Your task to perform on an android device: uninstall "AliExpress" Image 0: 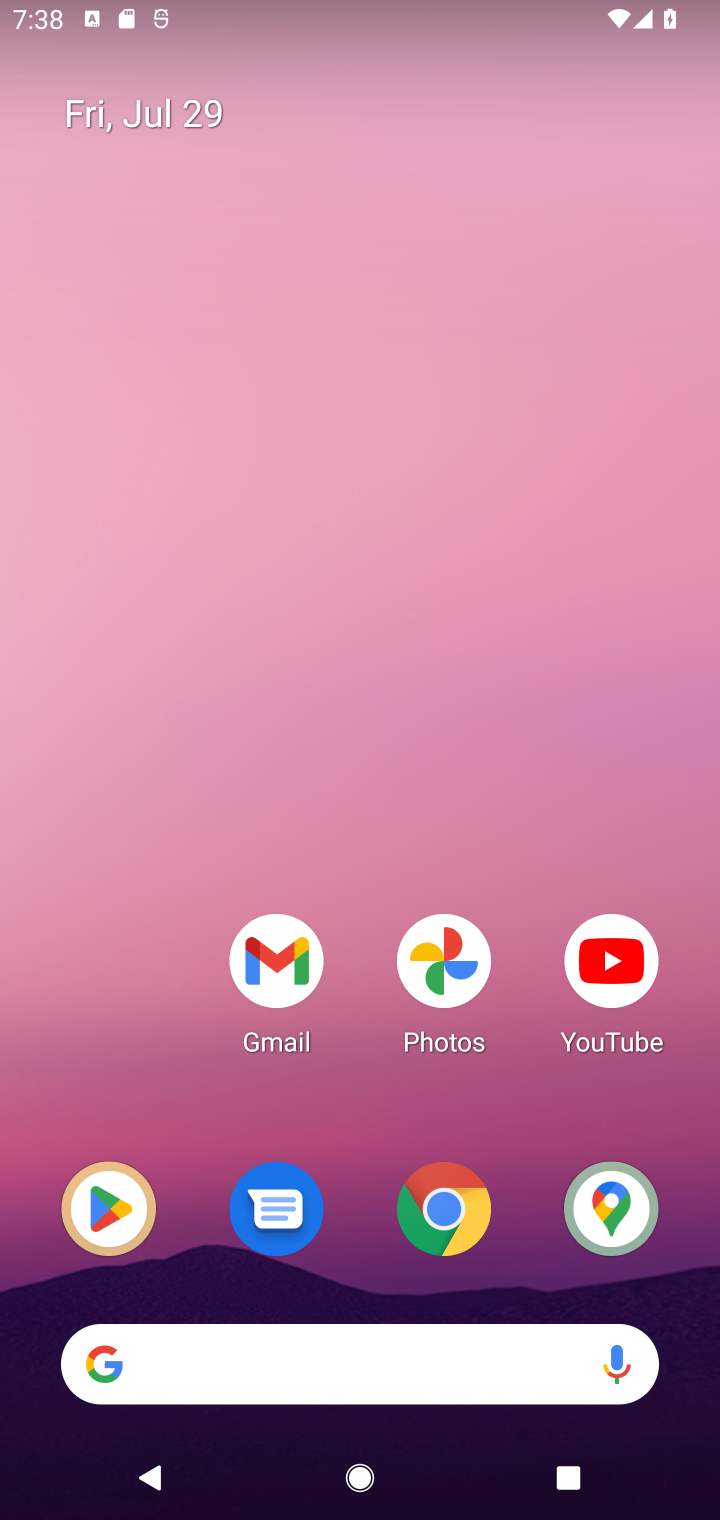
Step 0: click (131, 1222)
Your task to perform on an android device: uninstall "AliExpress" Image 1: 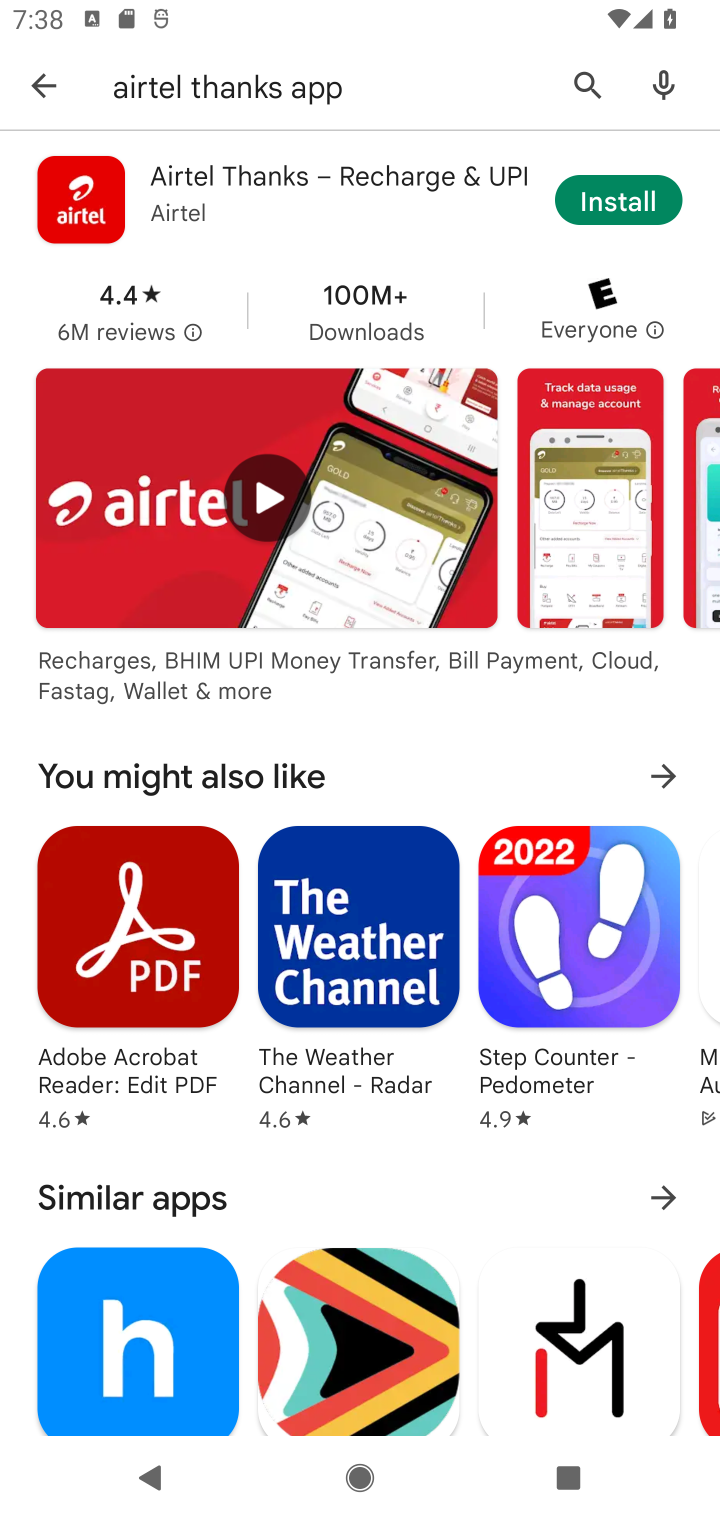
Step 1: click (589, 78)
Your task to perform on an android device: uninstall "AliExpress" Image 2: 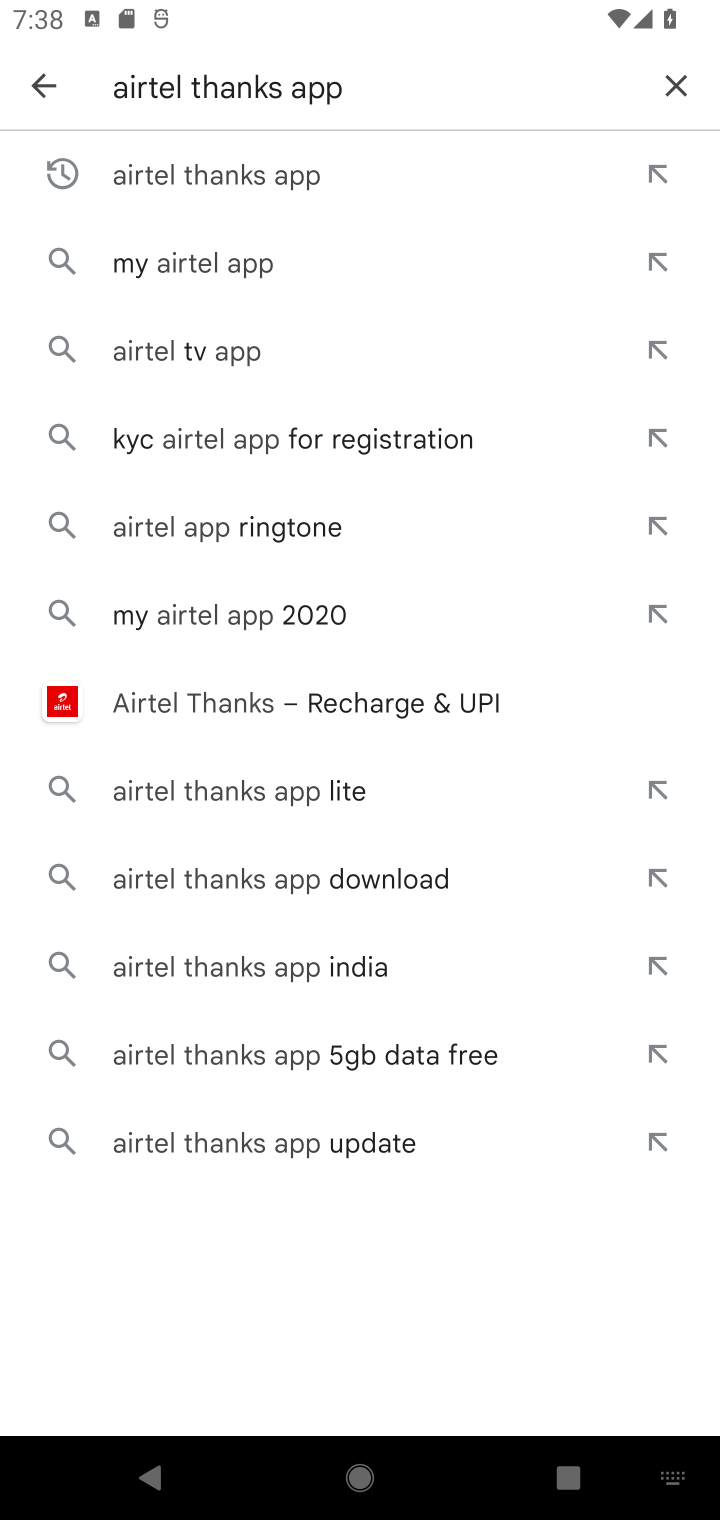
Step 2: click (682, 89)
Your task to perform on an android device: uninstall "AliExpress" Image 3: 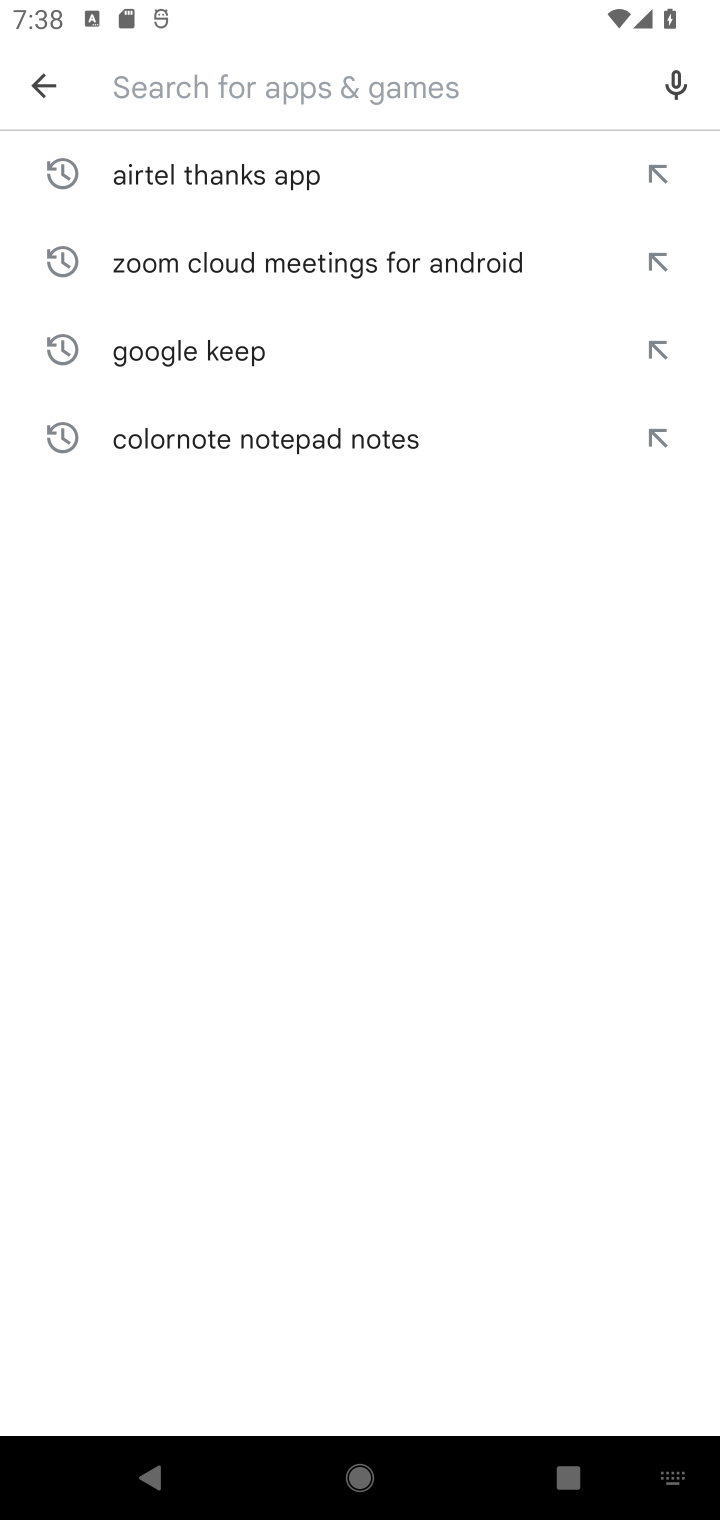
Step 3: click (240, 86)
Your task to perform on an android device: uninstall "AliExpress" Image 4: 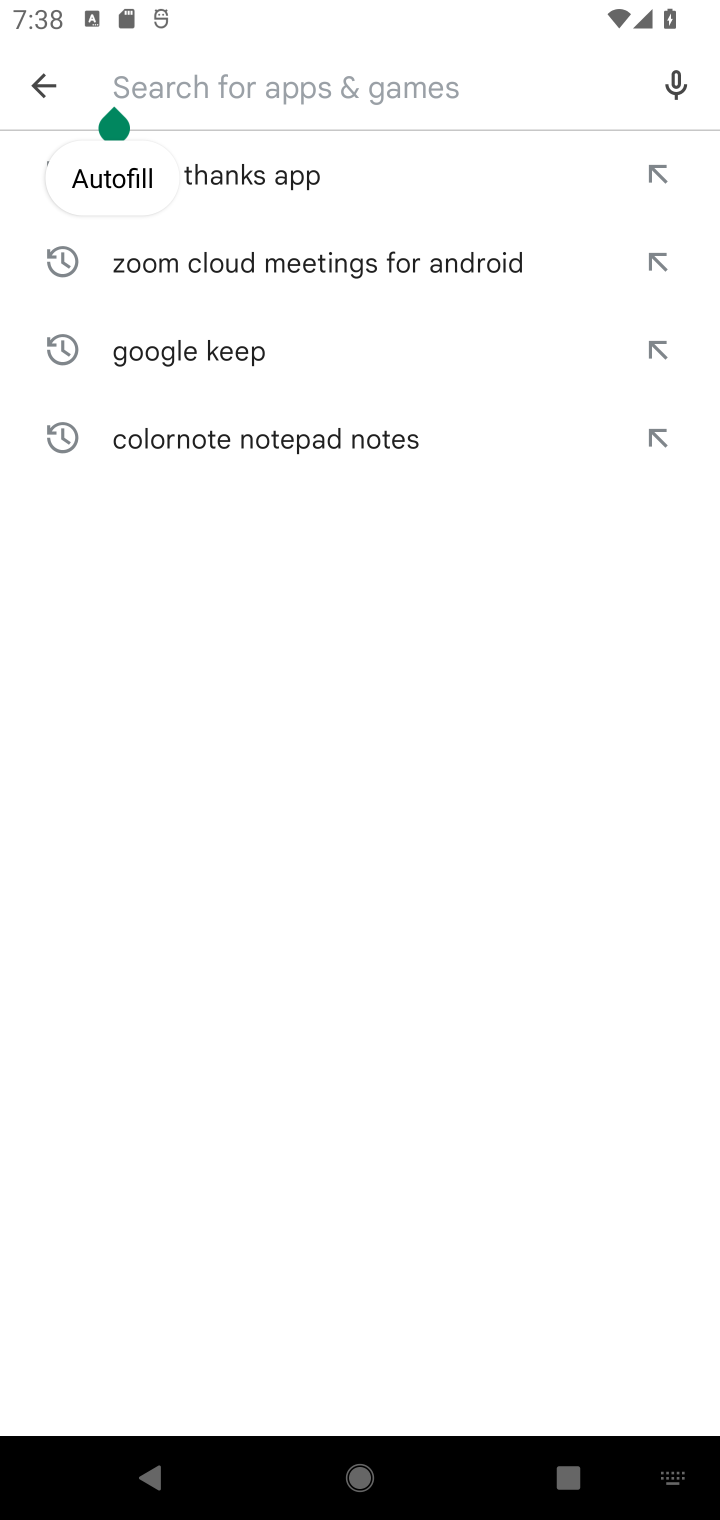
Step 4: type "AliExpress"
Your task to perform on an android device: uninstall "AliExpress" Image 5: 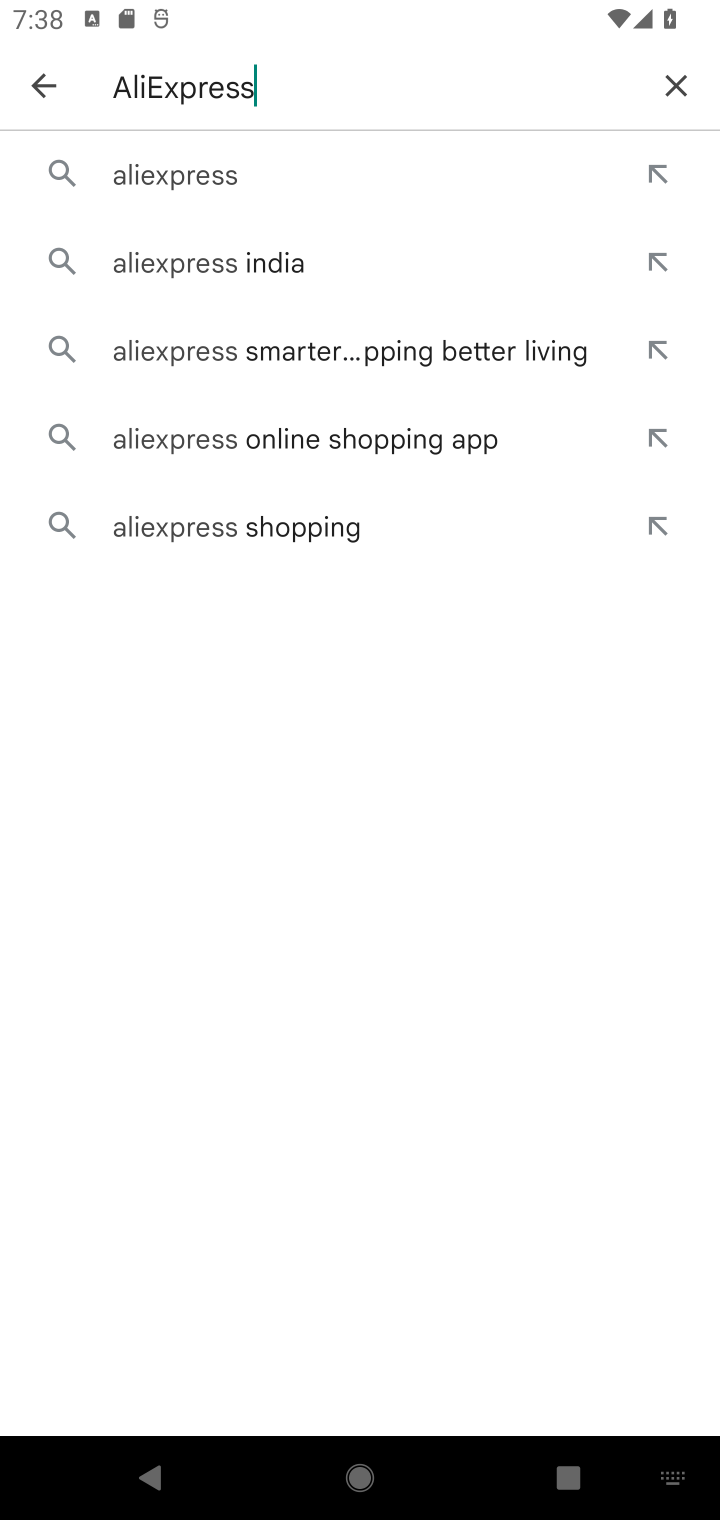
Step 5: click (128, 177)
Your task to perform on an android device: uninstall "AliExpress" Image 6: 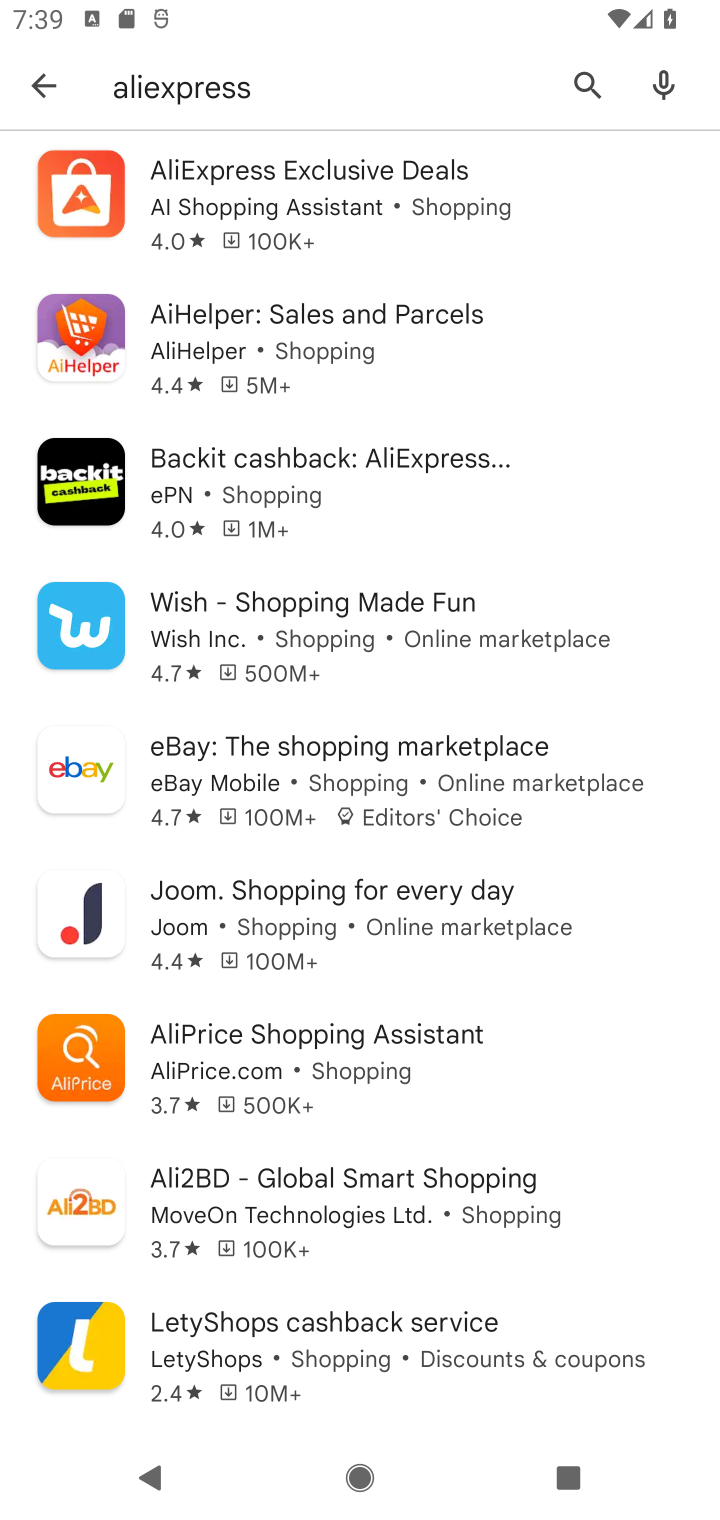
Step 6: click (168, 203)
Your task to perform on an android device: uninstall "AliExpress" Image 7: 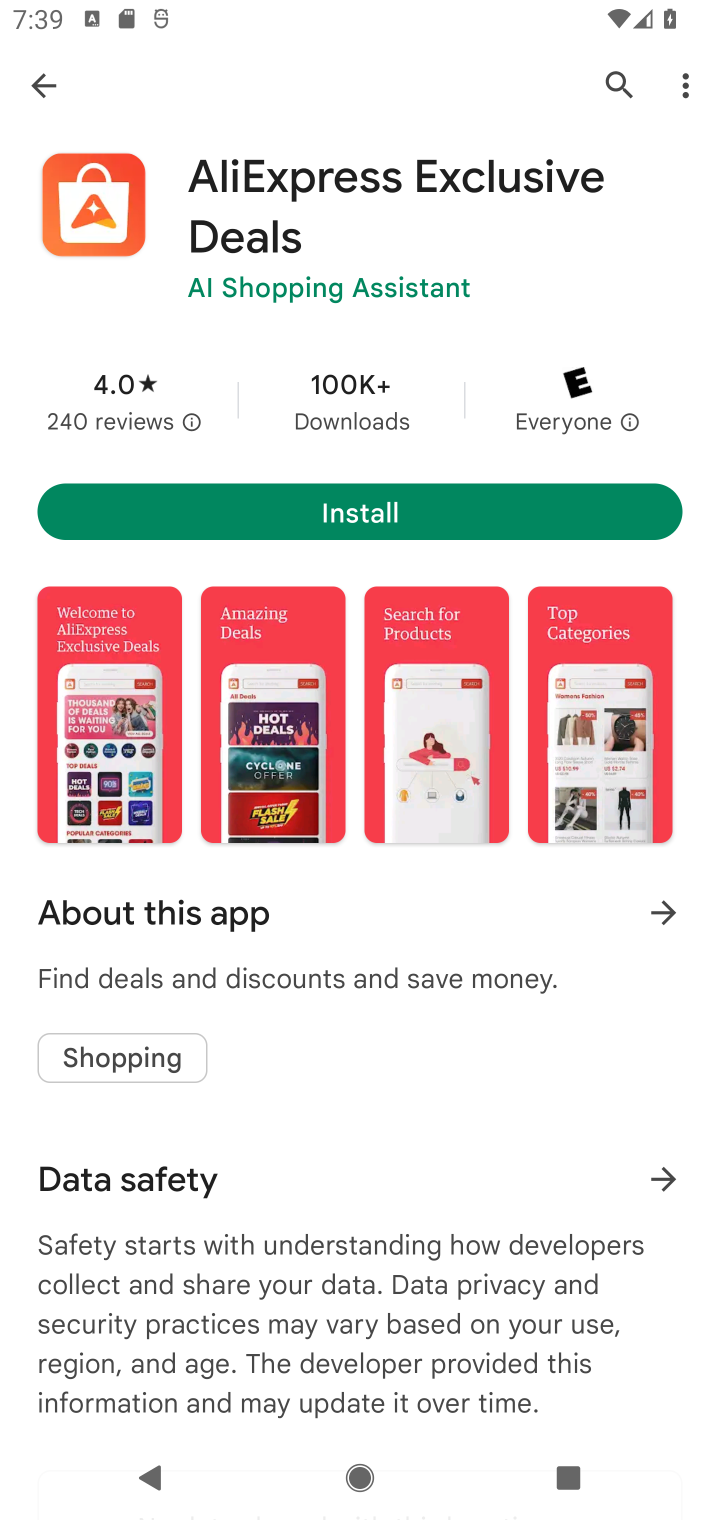
Step 7: task complete